Your task to perform on an android device: Open display settings Image 0: 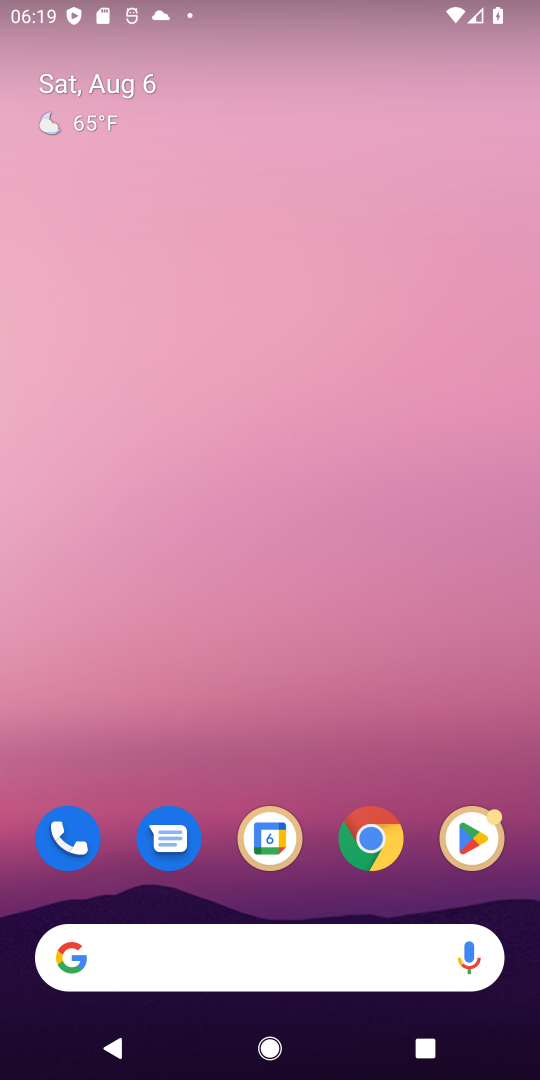
Step 0: drag from (332, 662) to (452, 1)
Your task to perform on an android device: Open display settings Image 1: 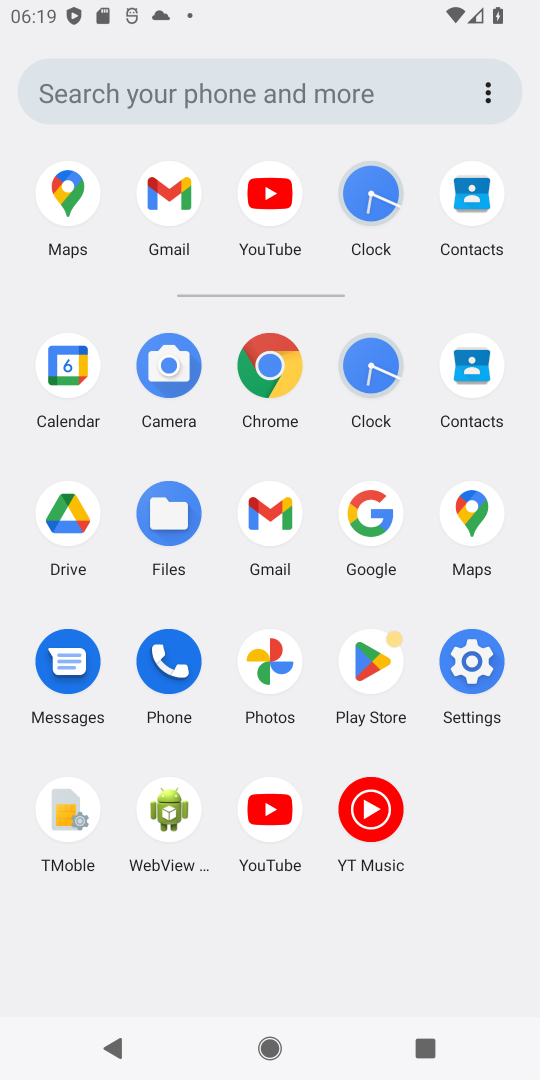
Step 1: click (496, 663)
Your task to perform on an android device: Open display settings Image 2: 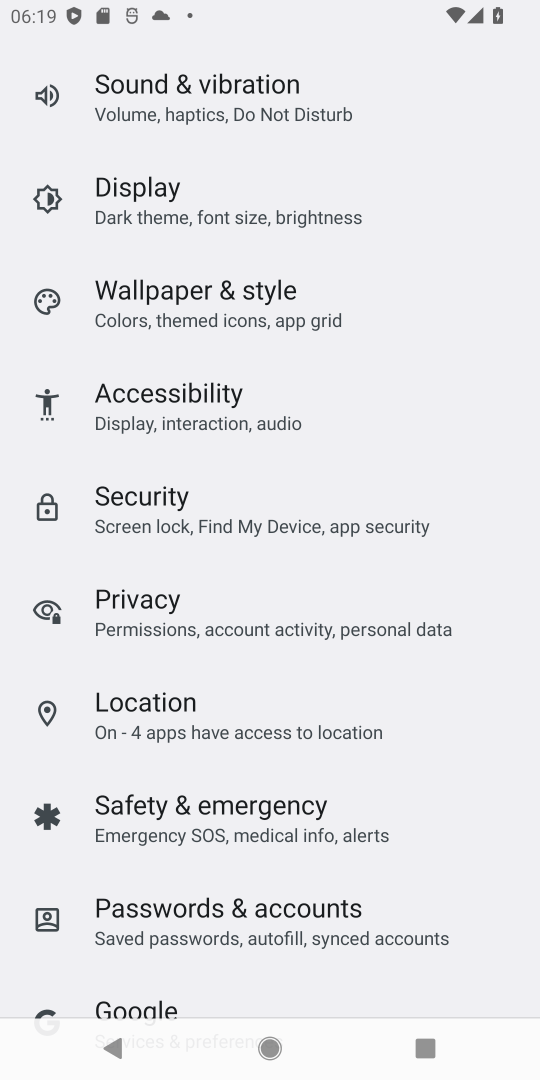
Step 2: click (183, 211)
Your task to perform on an android device: Open display settings Image 3: 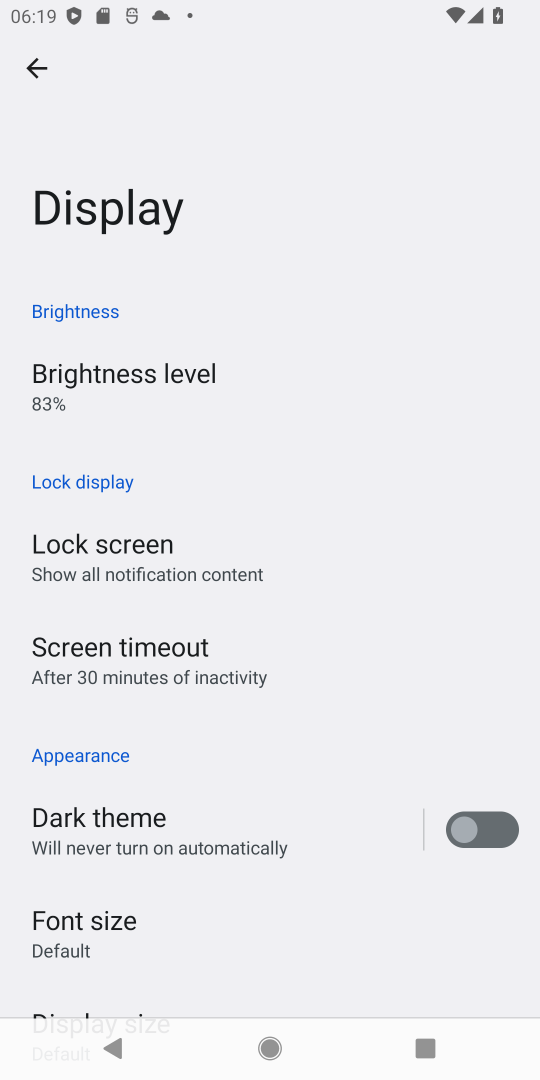
Step 3: task complete